Your task to perform on an android device: Go to wifi settings Image 0: 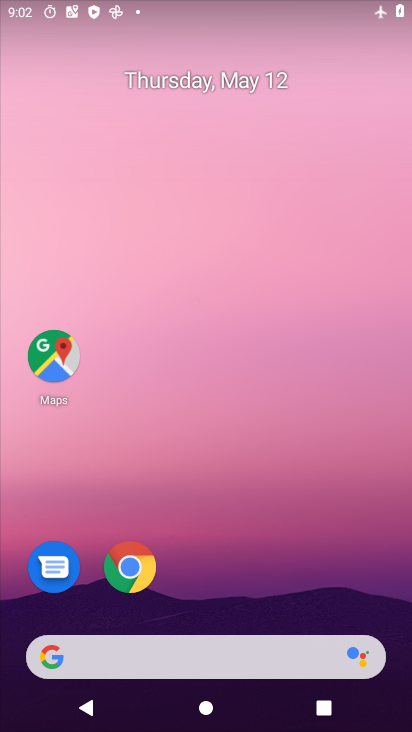
Step 0: drag from (260, 603) to (255, 168)
Your task to perform on an android device: Go to wifi settings Image 1: 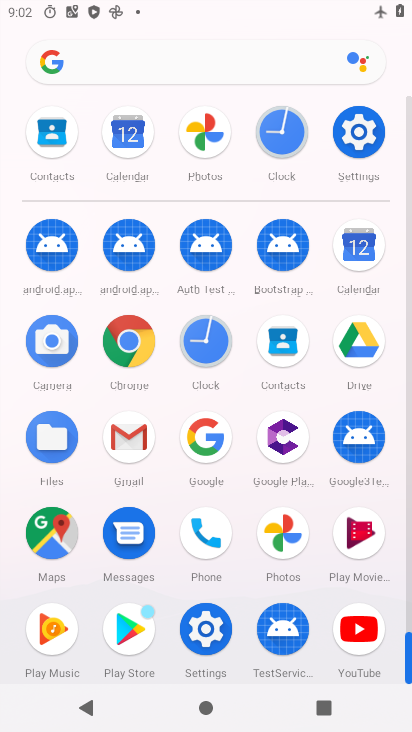
Step 1: click (358, 143)
Your task to perform on an android device: Go to wifi settings Image 2: 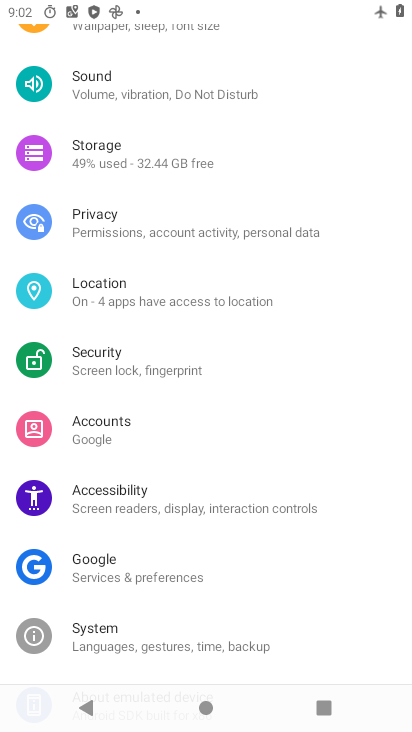
Step 2: drag from (221, 317) to (205, 719)
Your task to perform on an android device: Go to wifi settings Image 3: 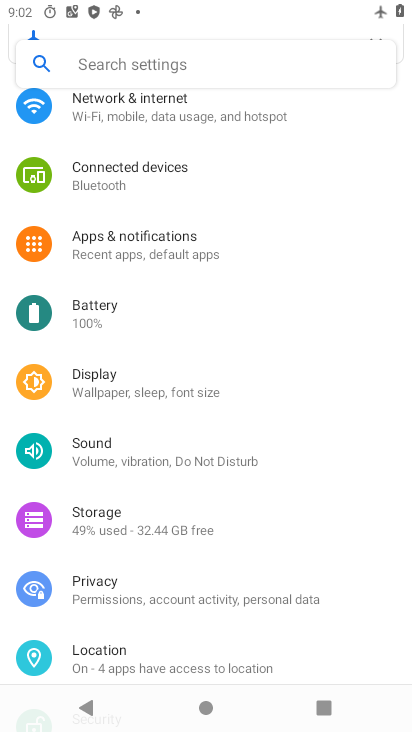
Step 3: drag from (221, 192) to (221, 536)
Your task to perform on an android device: Go to wifi settings Image 4: 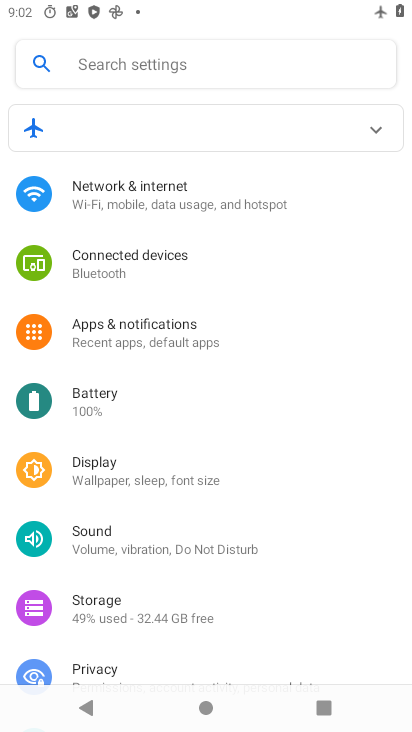
Step 4: click (233, 205)
Your task to perform on an android device: Go to wifi settings Image 5: 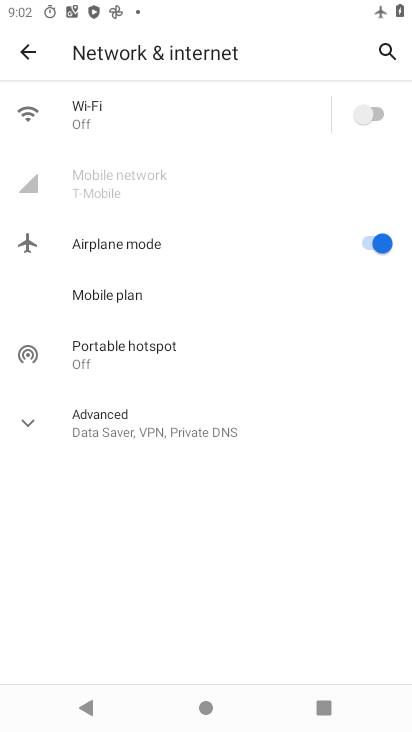
Step 5: click (192, 121)
Your task to perform on an android device: Go to wifi settings Image 6: 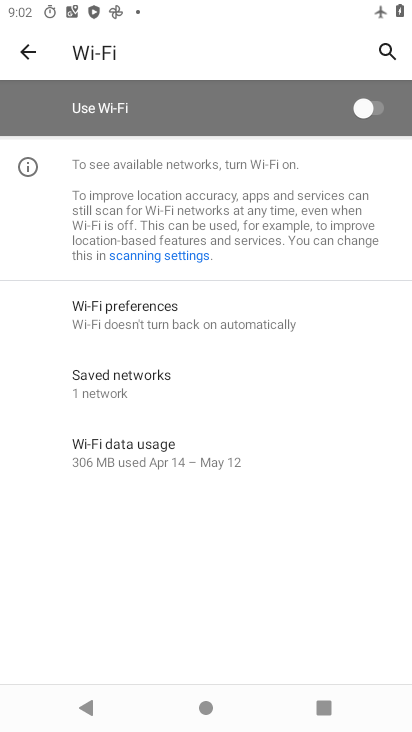
Step 6: task complete